Your task to perform on an android device: see sites visited before in the chrome app Image 0: 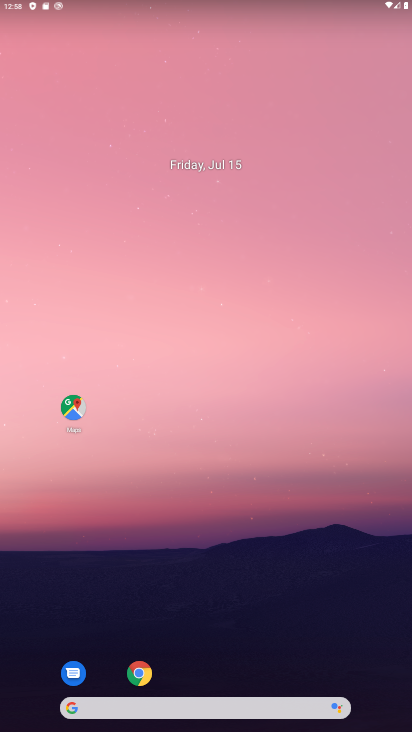
Step 0: drag from (281, 617) to (317, 29)
Your task to perform on an android device: see sites visited before in the chrome app Image 1: 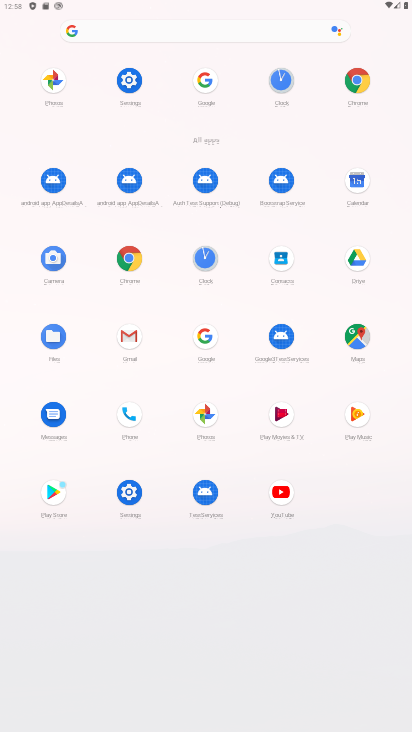
Step 1: click (355, 86)
Your task to perform on an android device: see sites visited before in the chrome app Image 2: 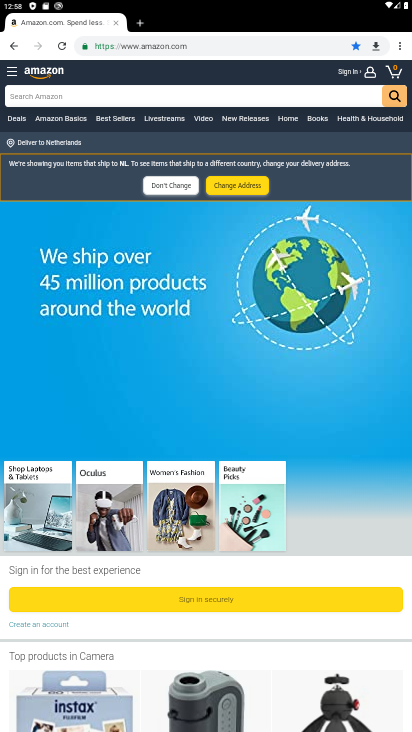
Step 2: task complete